Your task to perform on an android device: Go to Android settings Image 0: 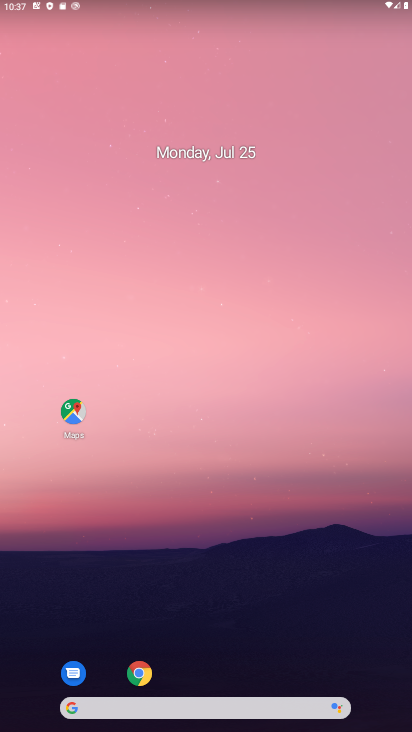
Step 0: drag from (209, 671) to (228, 18)
Your task to perform on an android device: Go to Android settings Image 1: 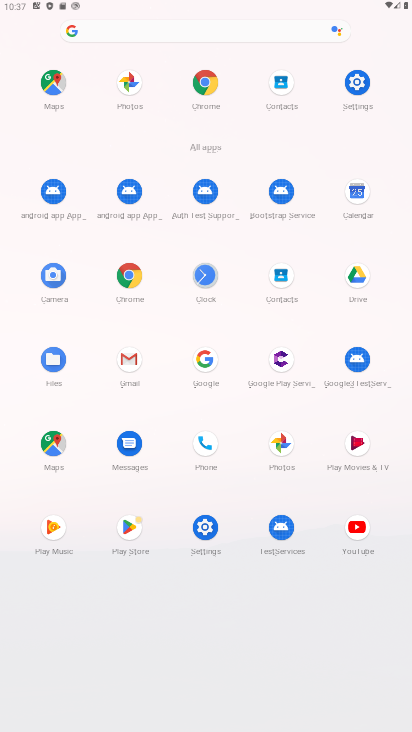
Step 1: click (353, 77)
Your task to perform on an android device: Go to Android settings Image 2: 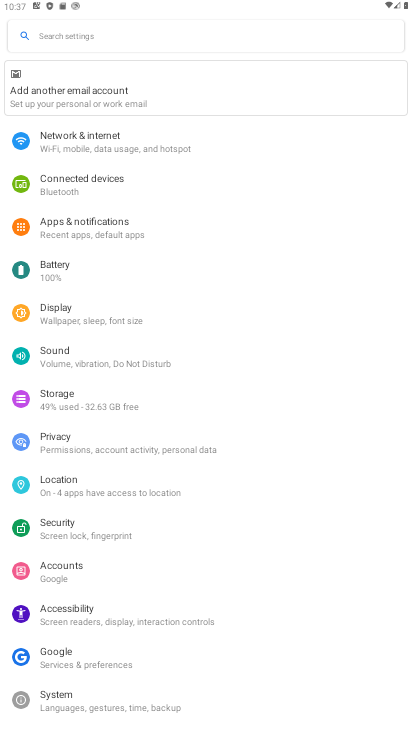
Step 2: drag from (170, 683) to (195, 120)
Your task to perform on an android device: Go to Android settings Image 3: 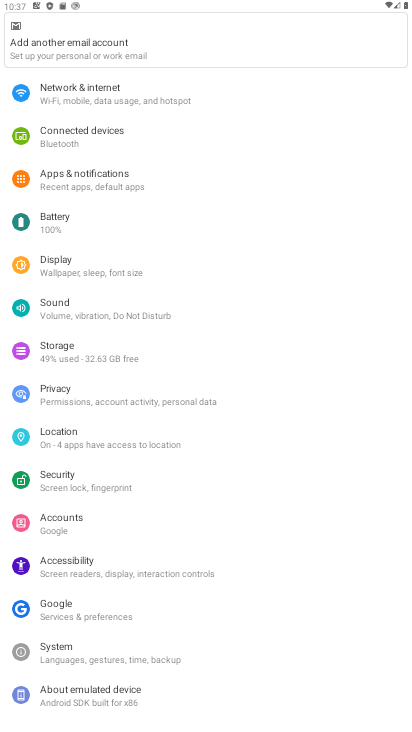
Step 3: click (158, 700)
Your task to perform on an android device: Go to Android settings Image 4: 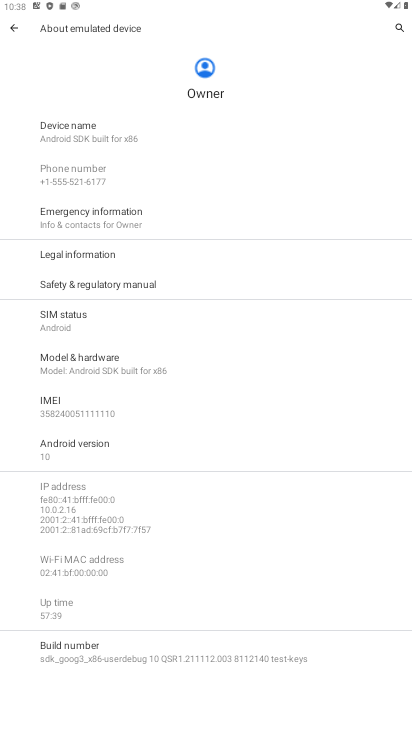
Step 4: click (107, 451)
Your task to perform on an android device: Go to Android settings Image 5: 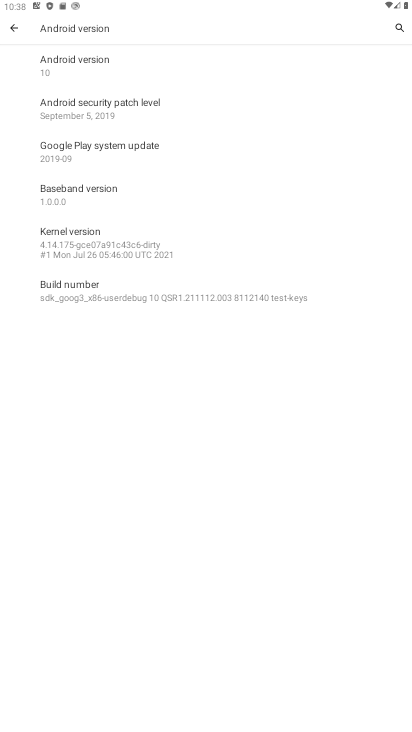
Step 5: task complete